Your task to perform on an android device: Search for seafood restaurants on Google Maps Image 0: 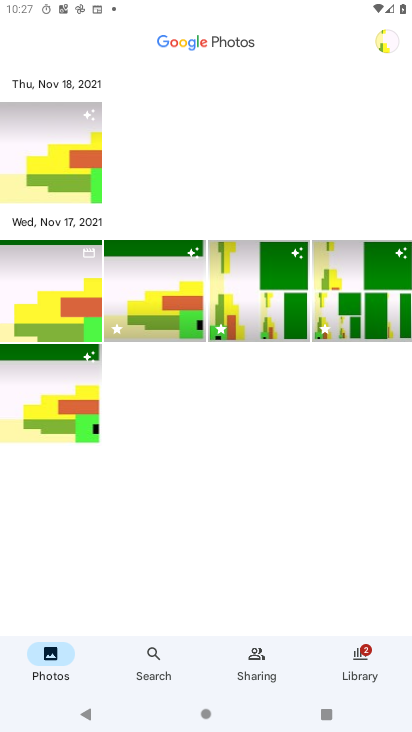
Step 0: press home button
Your task to perform on an android device: Search for seafood restaurants on Google Maps Image 1: 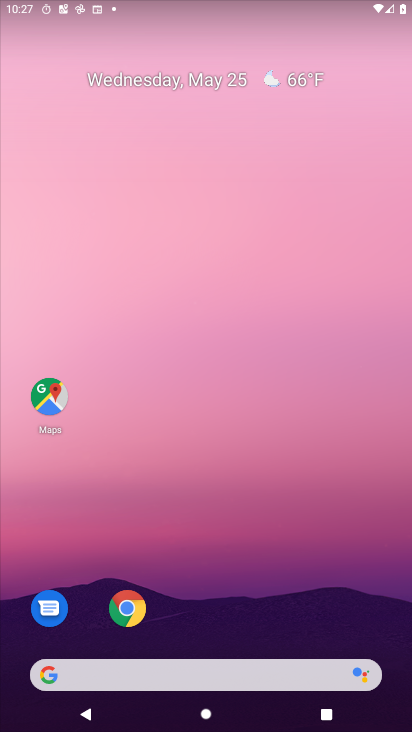
Step 1: drag from (225, 731) to (224, 93)
Your task to perform on an android device: Search for seafood restaurants on Google Maps Image 2: 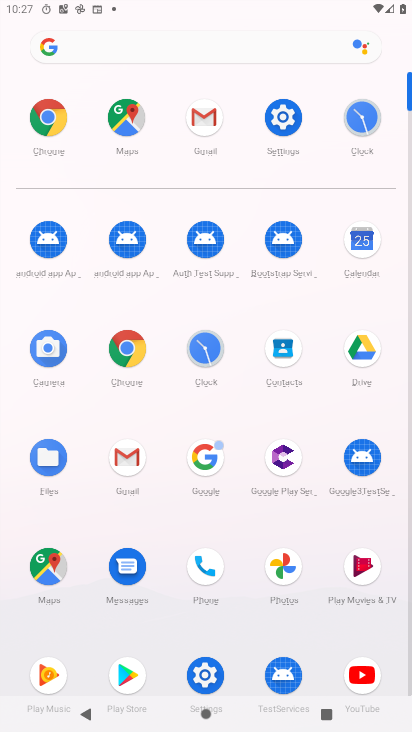
Step 2: click (42, 566)
Your task to perform on an android device: Search for seafood restaurants on Google Maps Image 3: 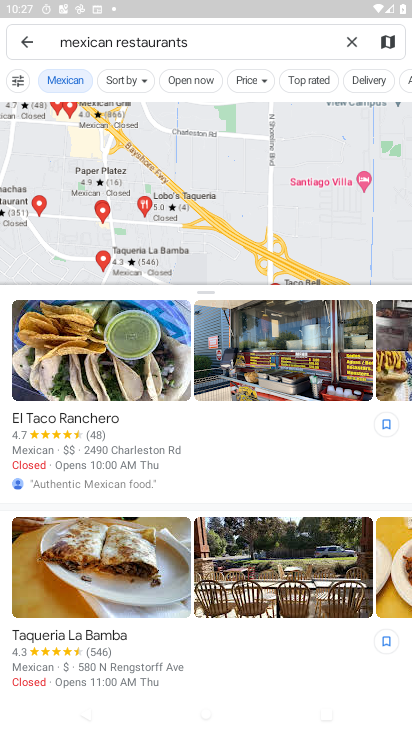
Step 3: click (350, 36)
Your task to perform on an android device: Search for seafood restaurants on Google Maps Image 4: 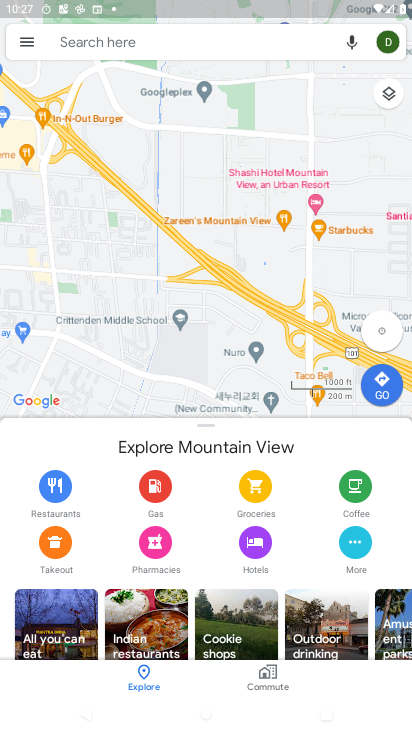
Step 4: click (166, 36)
Your task to perform on an android device: Search for seafood restaurants on Google Maps Image 5: 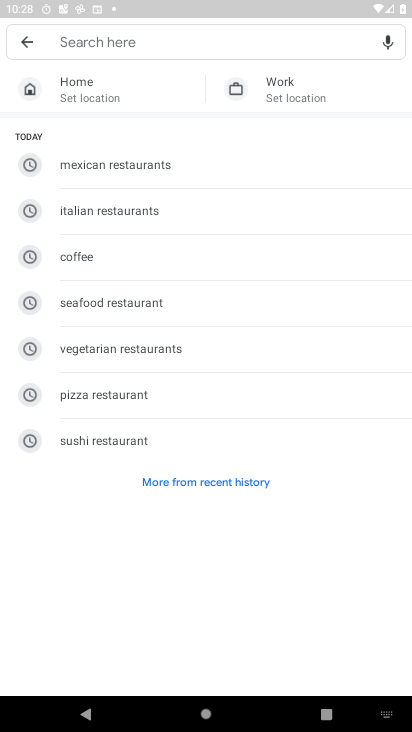
Step 5: type "seafood restaurants"
Your task to perform on an android device: Search for seafood restaurants on Google Maps Image 6: 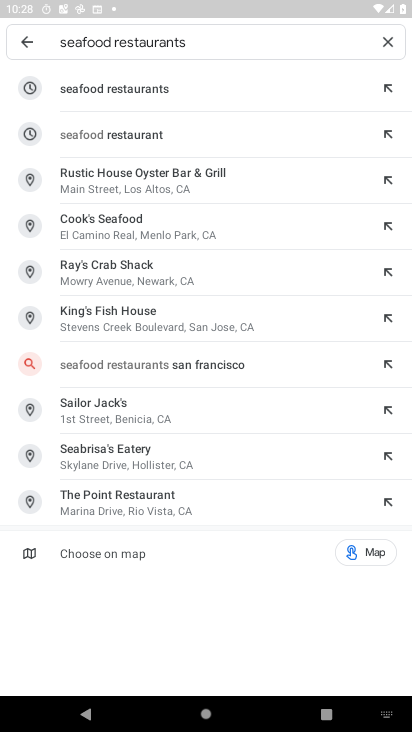
Step 6: click (175, 85)
Your task to perform on an android device: Search for seafood restaurants on Google Maps Image 7: 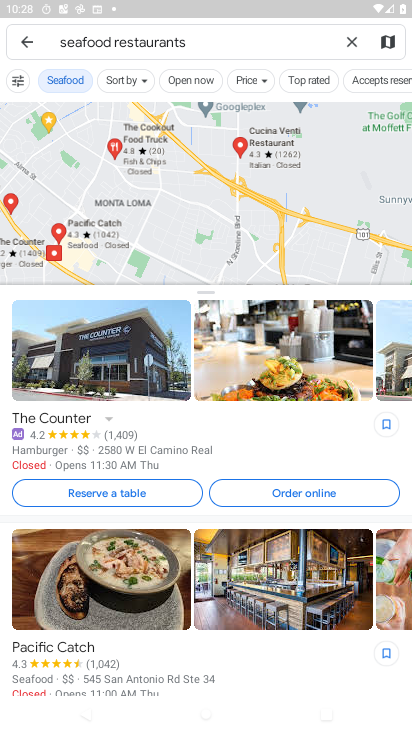
Step 7: task complete